Your task to perform on an android device: Check the news Image 0: 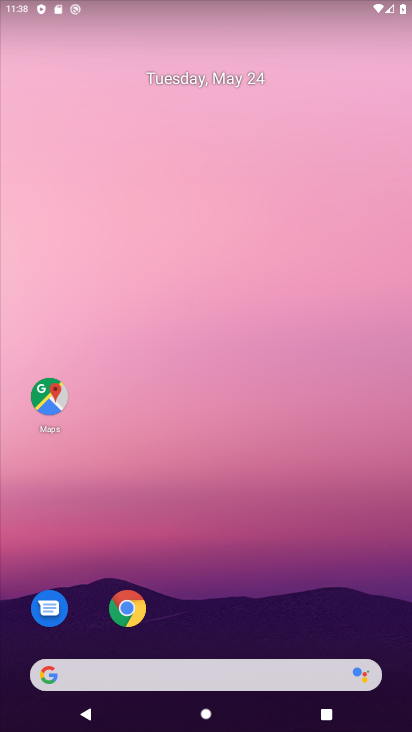
Step 0: drag from (1, 313) to (384, 296)
Your task to perform on an android device: Check the news Image 1: 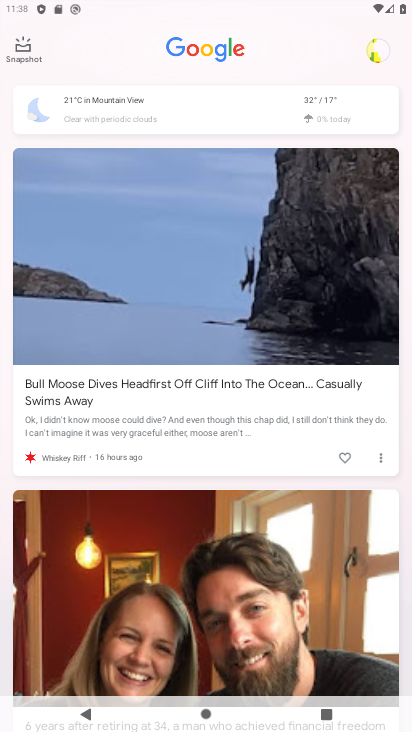
Step 1: task complete